Your task to perform on an android device: Open display settings Image 0: 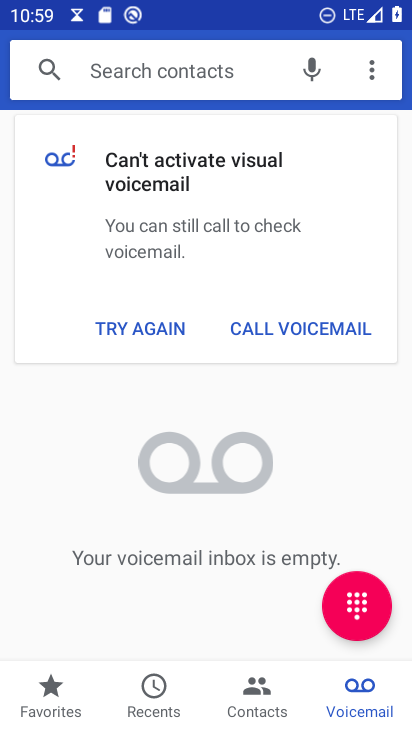
Step 0: press home button
Your task to perform on an android device: Open display settings Image 1: 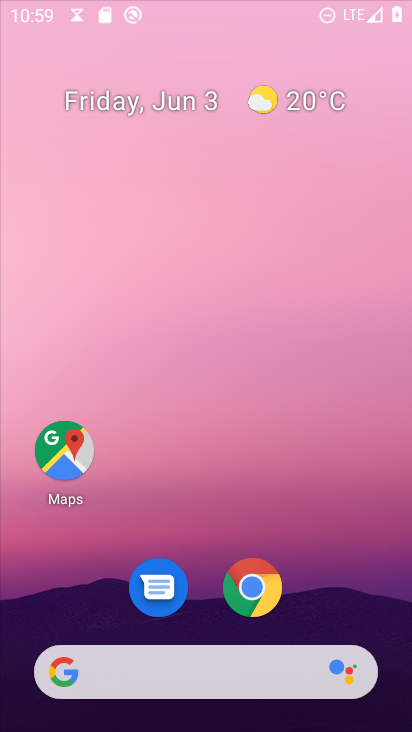
Step 1: drag from (343, 553) to (67, 18)
Your task to perform on an android device: Open display settings Image 2: 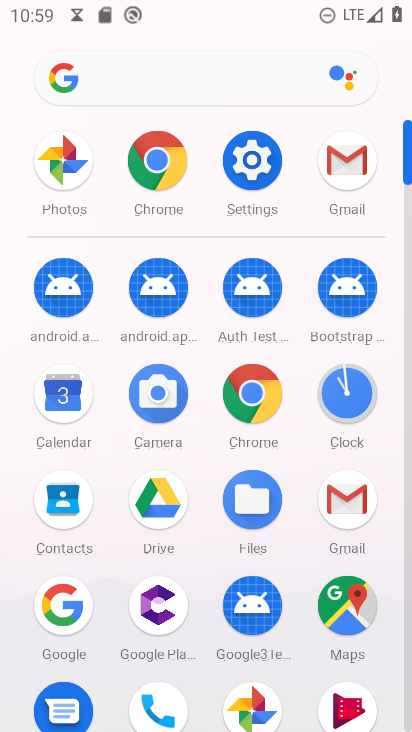
Step 2: click (267, 167)
Your task to perform on an android device: Open display settings Image 3: 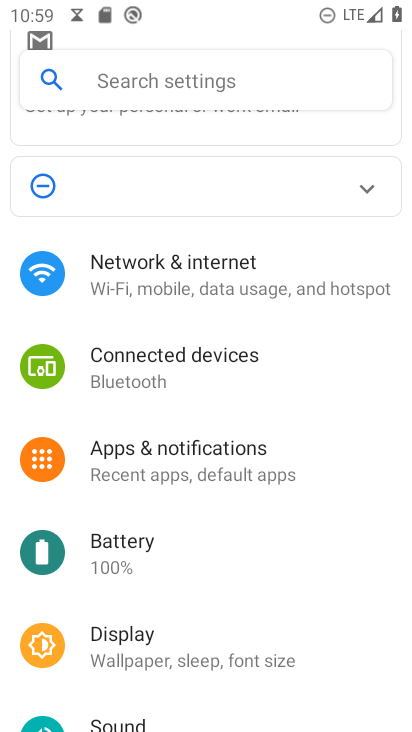
Step 3: click (214, 648)
Your task to perform on an android device: Open display settings Image 4: 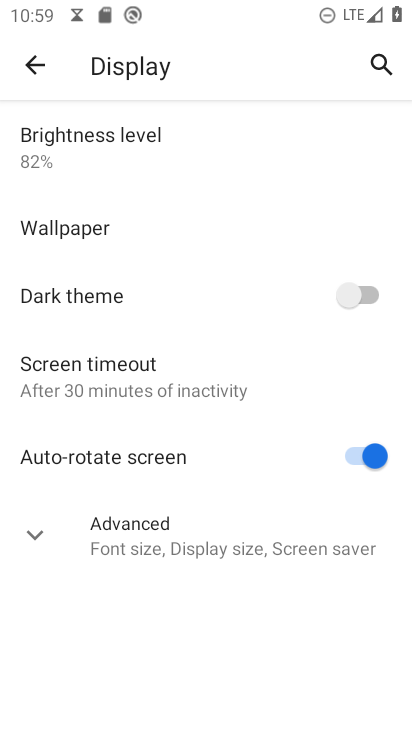
Step 4: task complete